Your task to perform on an android device: star an email in the gmail app Image 0: 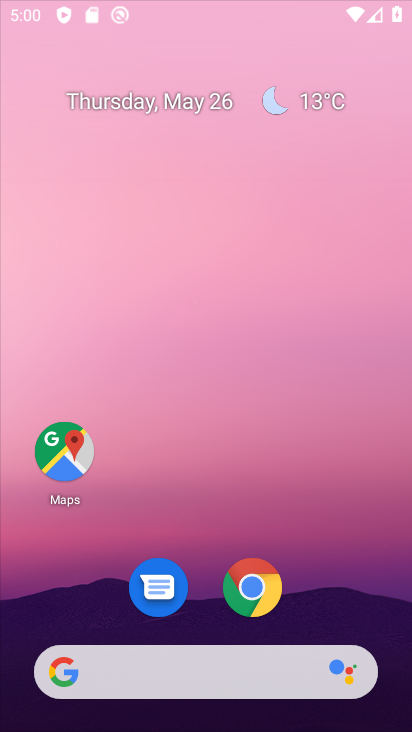
Step 0: click (254, 587)
Your task to perform on an android device: star an email in the gmail app Image 1: 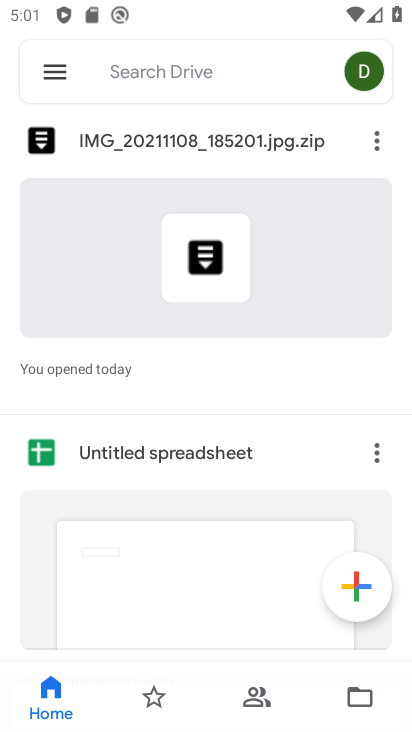
Step 1: press home button
Your task to perform on an android device: star an email in the gmail app Image 2: 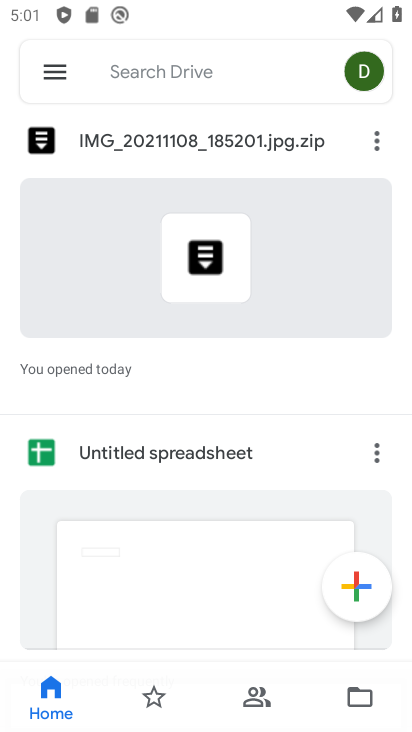
Step 2: press home button
Your task to perform on an android device: star an email in the gmail app Image 3: 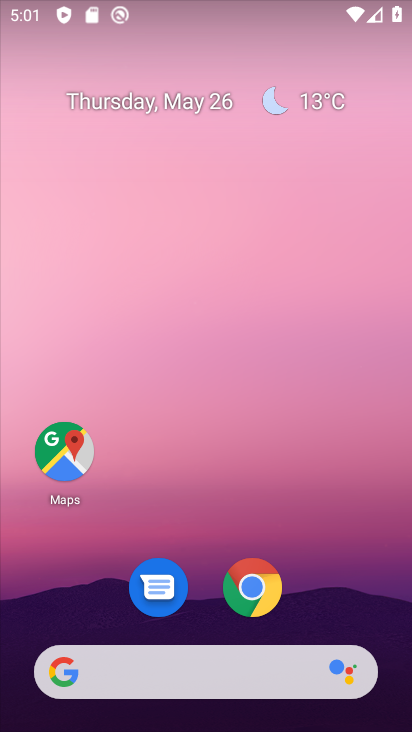
Step 3: drag from (230, 720) to (216, 87)
Your task to perform on an android device: star an email in the gmail app Image 4: 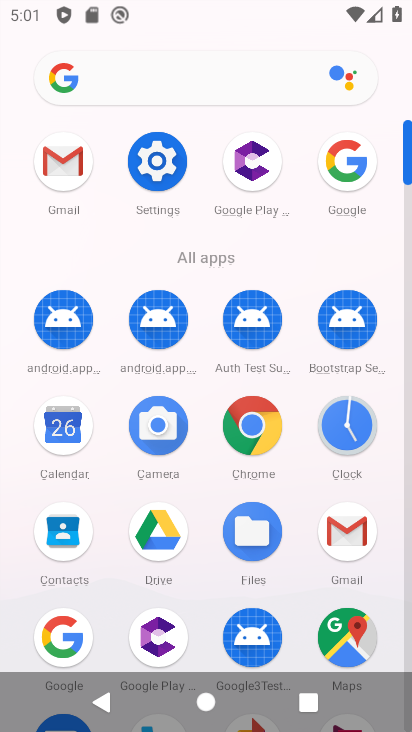
Step 4: click (336, 534)
Your task to perform on an android device: star an email in the gmail app Image 5: 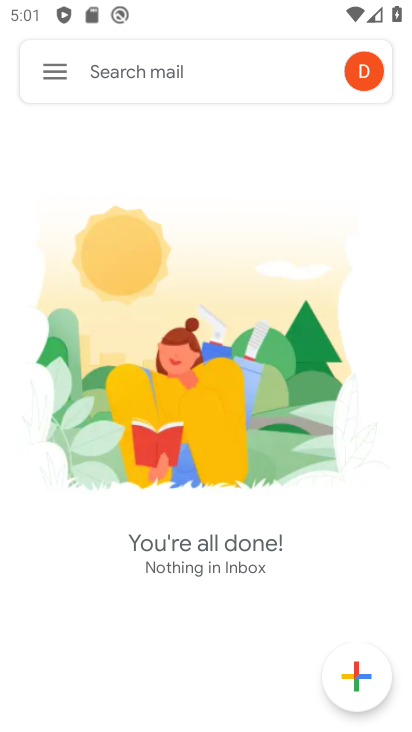
Step 5: task complete